Your task to perform on an android device: turn off wifi Image 0: 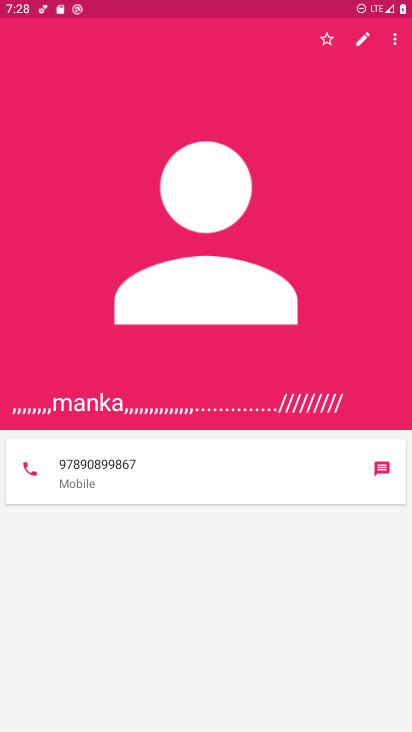
Step 0: press home button
Your task to perform on an android device: turn off wifi Image 1: 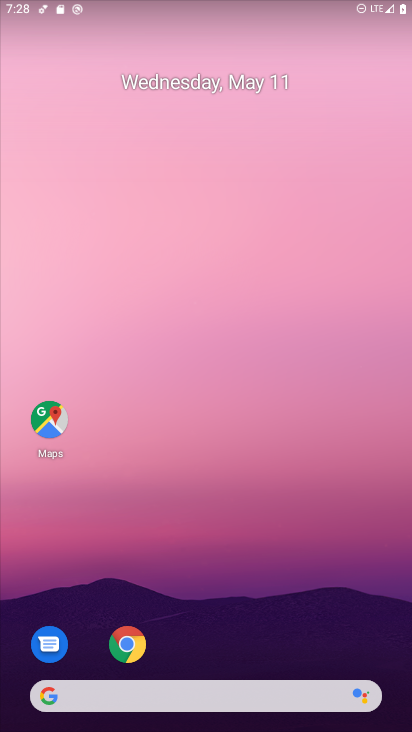
Step 1: drag from (232, 608) to (161, 94)
Your task to perform on an android device: turn off wifi Image 2: 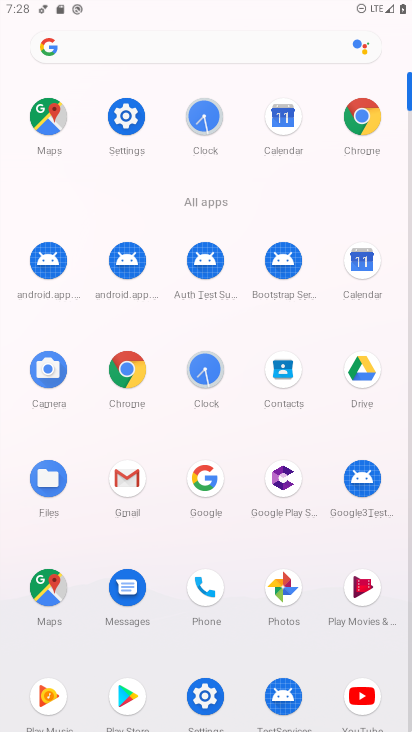
Step 2: click (127, 116)
Your task to perform on an android device: turn off wifi Image 3: 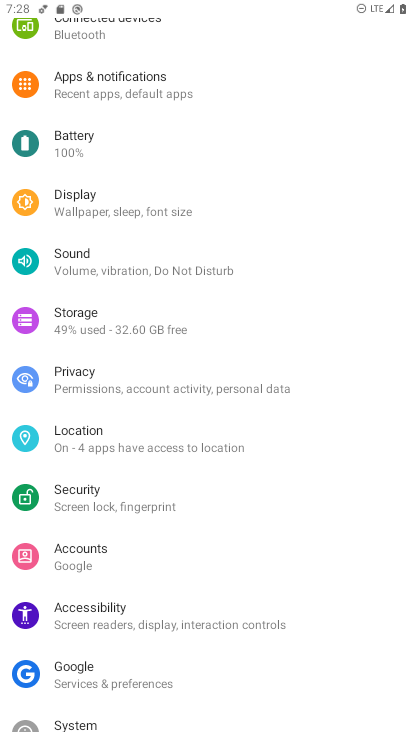
Step 3: drag from (191, 141) to (206, 548)
Your task to perform on an android device: turn off wifi Image 4: 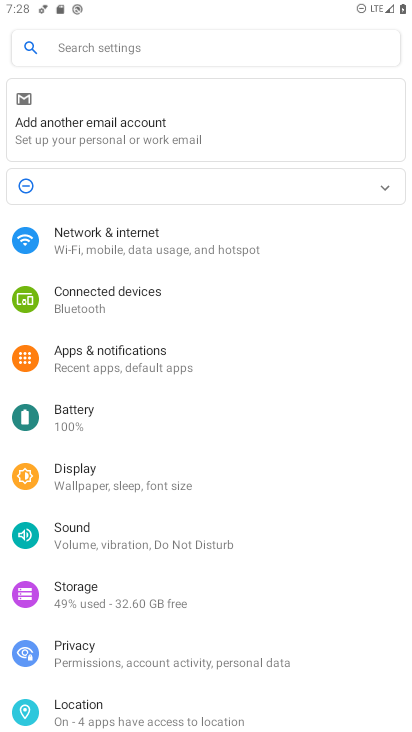
Step 4: click (102, 241)
Your task to perform on an android device: turn off wifi Image 5: 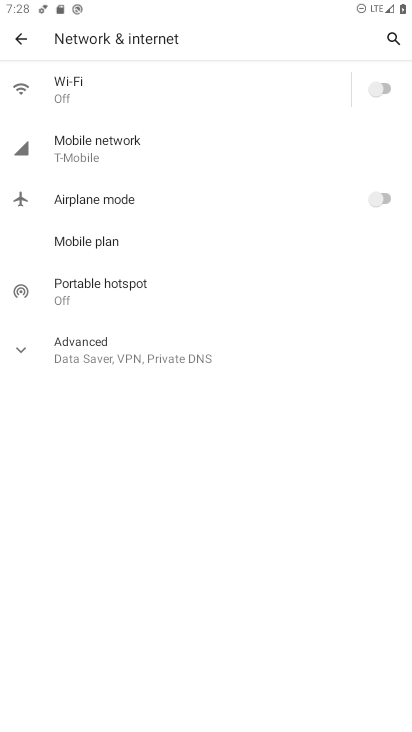
Step 5: task complete